Your task to perform on an android device: choose inbox layout in the gmail app Image 0: 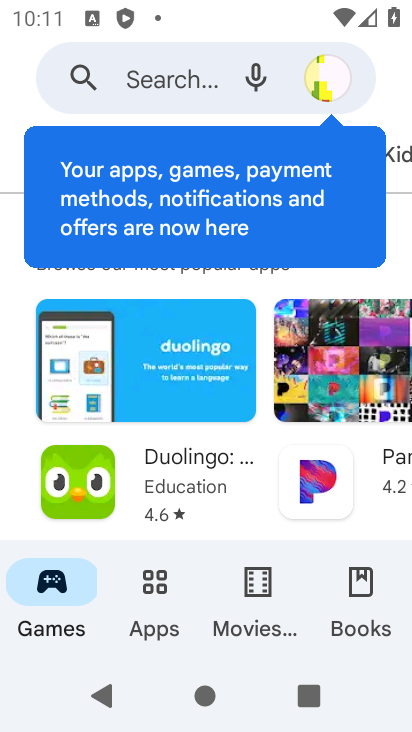
Step 0: press home button
Your task to perform on an android device: choose inbox layout in the gmail app Image 1: 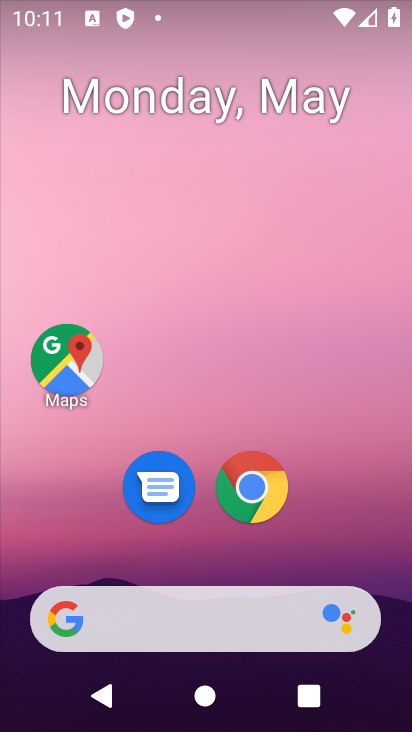
Step 1: drag from (228, 565) to (256, 137)
Your task to perform on an android device: choose inbox layout in the gmail app Image 2: 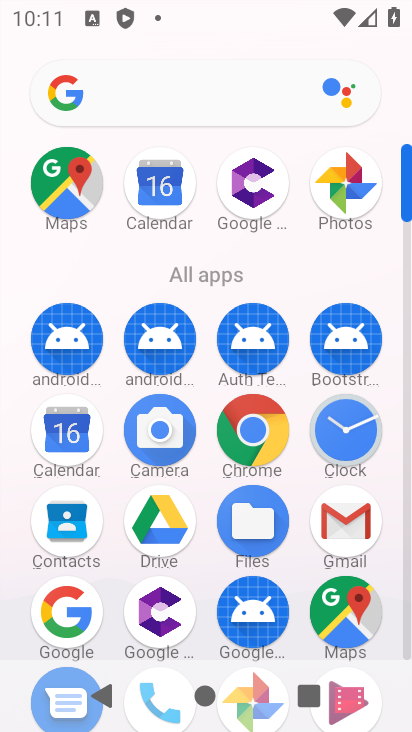
Step 2: click (339, 537)
Your task to perform on an android device: choose inbox layout in the gmail app Image 3: 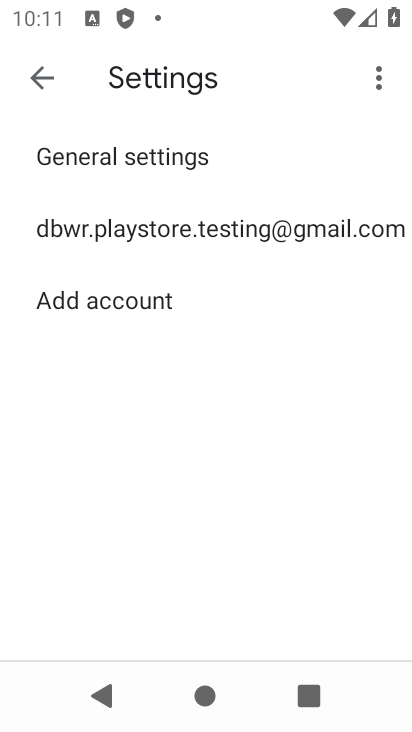
Step 3: click (116, 237)
Your task to perform on an android device: choose inbox layout in the gmail app Image 4: 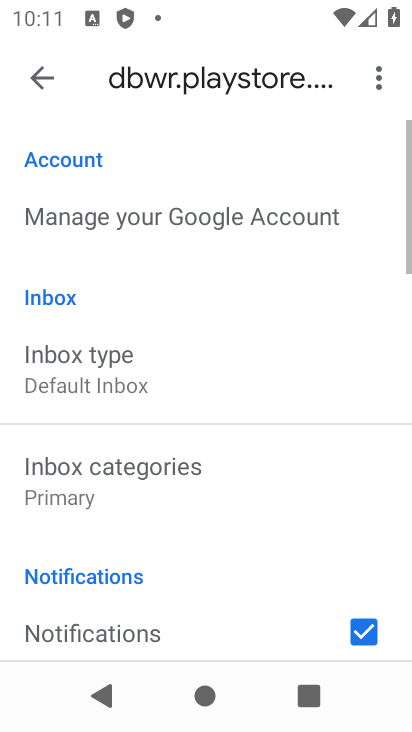
Step 4: click (104, 354)
Your task to perform on an android device: choose inbox layout in the gmail app Image 5: 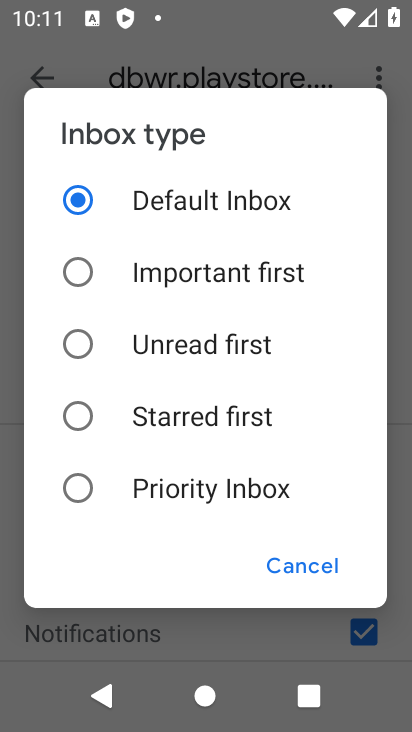
Step 5: task complete